Your task to perform on an android device: clear history in the chrome app Image 0: 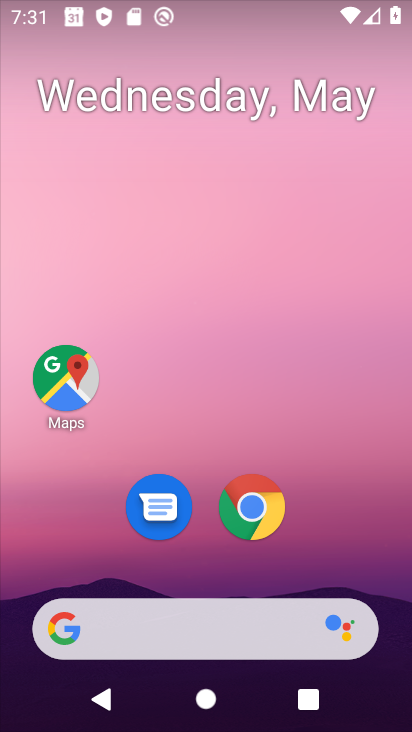
Step 0: click (267, 495)
Your task to perform on an android device: clear history in the chrome app Image 1: 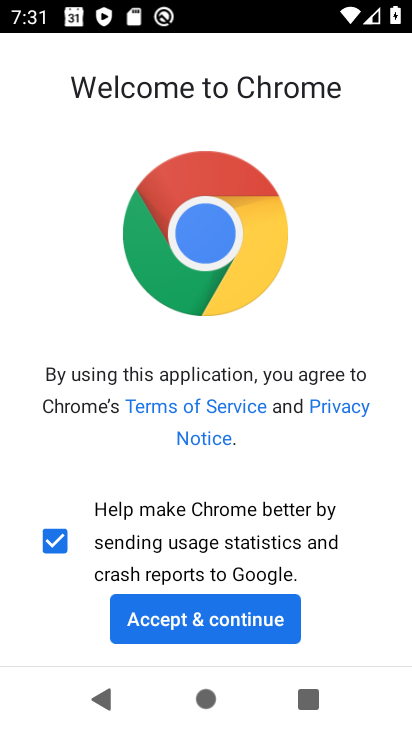
Step 1: click (243, 619)
Your task to perform on an android device: clear history in the chrome app Image 2: 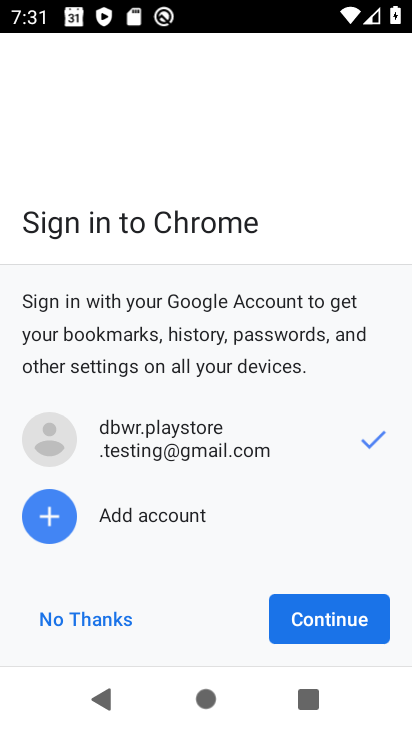
Step 2: click (312, 613)
Your task to perform on an android device: clear history in the chrome app Image 3: 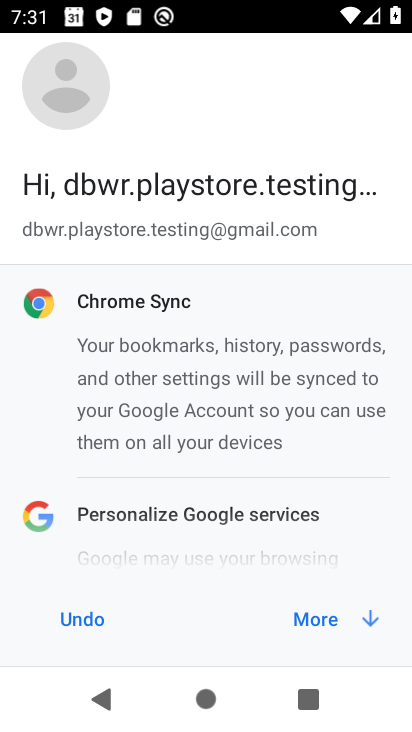
Step 3: click (330, 624)
Your task to perform on an android device: clear history in the chrome app Image 4: 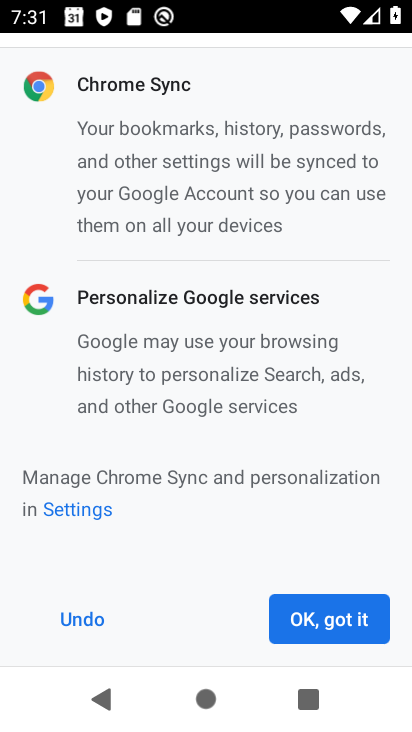
Step 4: click (330, 624)
Your task to perform on an android device: clear history in the chrome app Image 5: 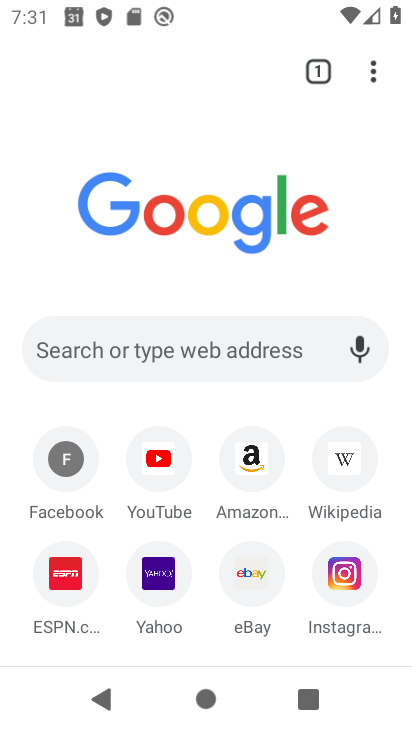
Step 5: click (374, 58)
Your task to perform on an android device: clear history in the chrome app Image 6: 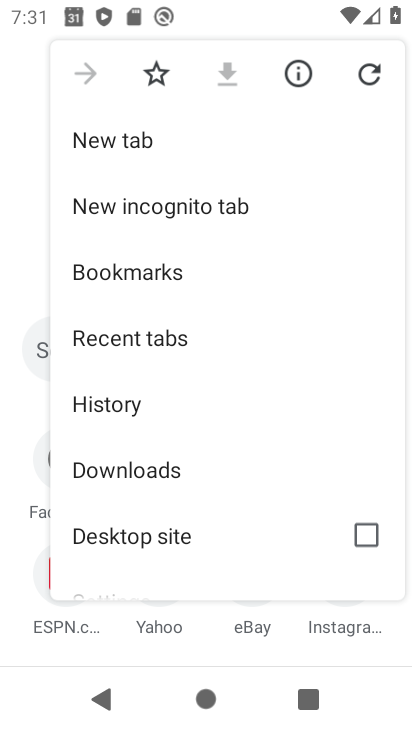
Step 6: click (136, 407)
Your task to perform on an android device: clear history in the chrome app Image 7: 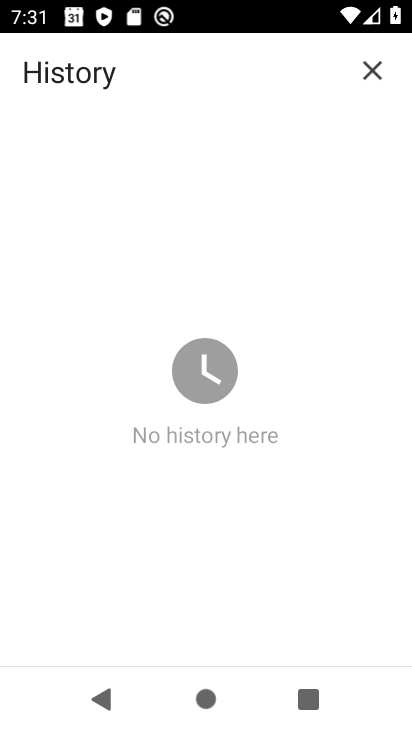
Step 7: task complete